Your task to perform on an android device: Is it going to rain tomorrow? Image 0: 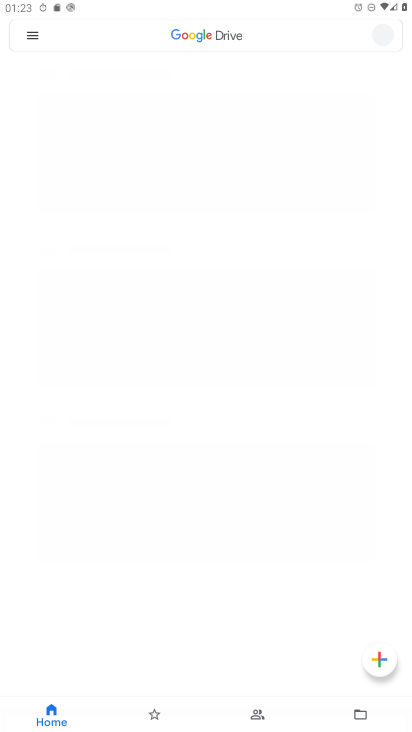
Step 0: press home button
Your task to perform on an android device: Is it going to rain tomorrow? Image 1: 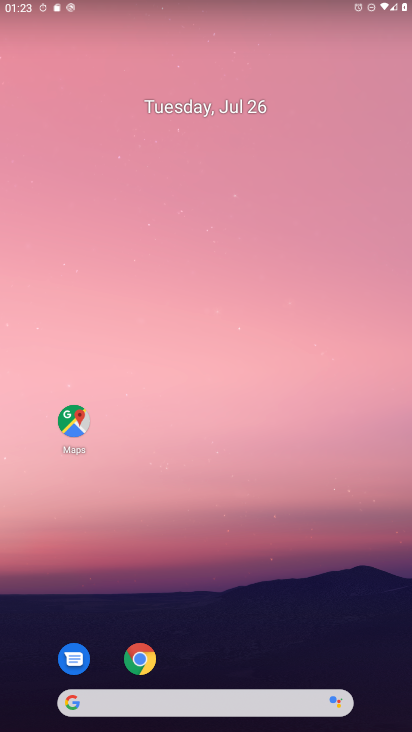
Step 1: click (137, 657)
Your task to perform on an android device: Is it going to rain tomorrow? Image 2: 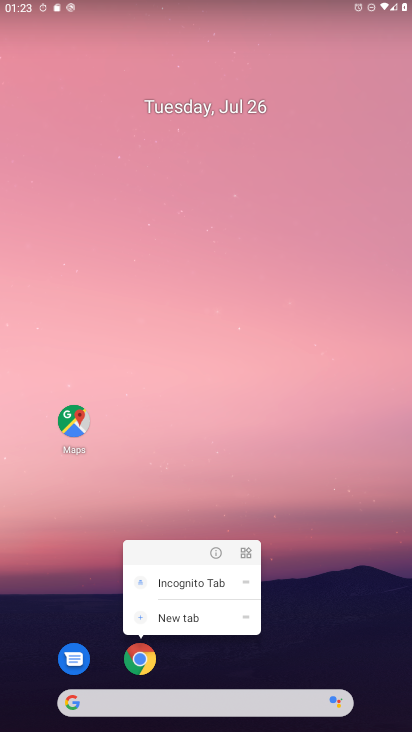
Step 2: click (147, 660)
Your task to perform on an android device: Is it going to rain tomorrow? Image 3: 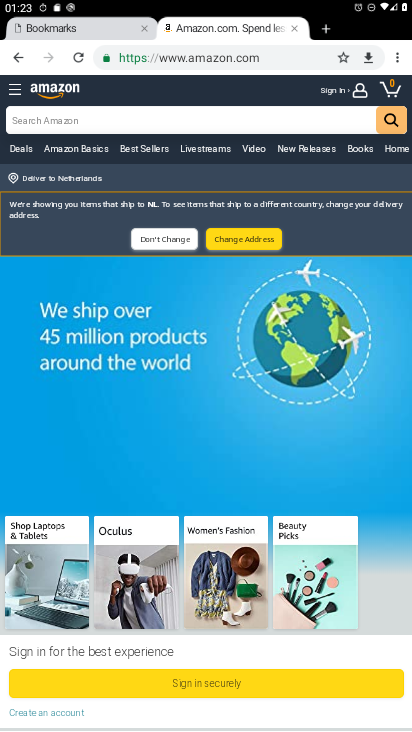
Step 3: click (238, 56)
Your task to perform on an android device: Is it going to rain tomorrow? Image 4: 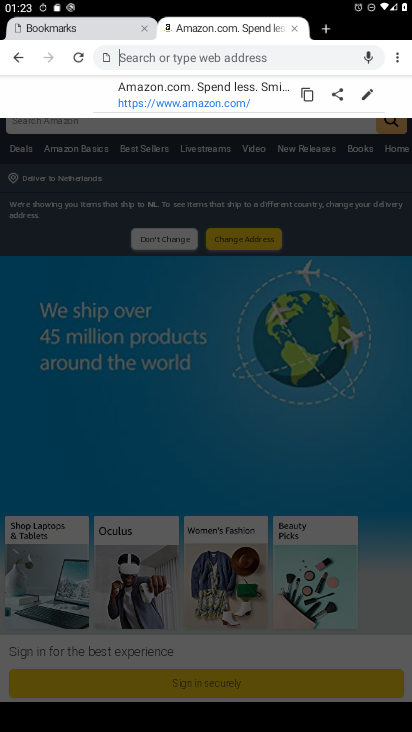
Step 4: type "Is it going to rain tomorrow?"
Your task to perform on an android device: Is it going to rain tomorrow? Image 5: 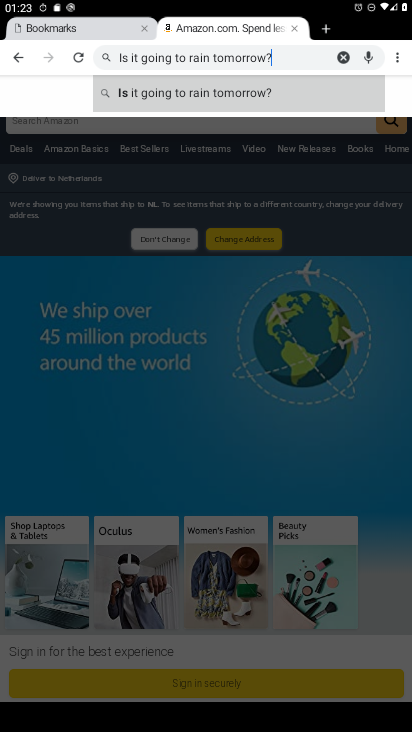
Step 5: click (239, 89)
Your task to perform on an android device: Is it going to rain tomorrow? Image 6: 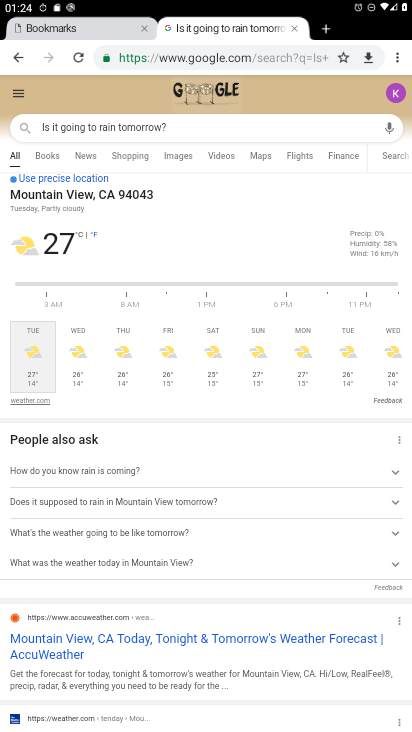
Step 6: task complete